Your task to perform on an android device: Go to eBay Image 0: 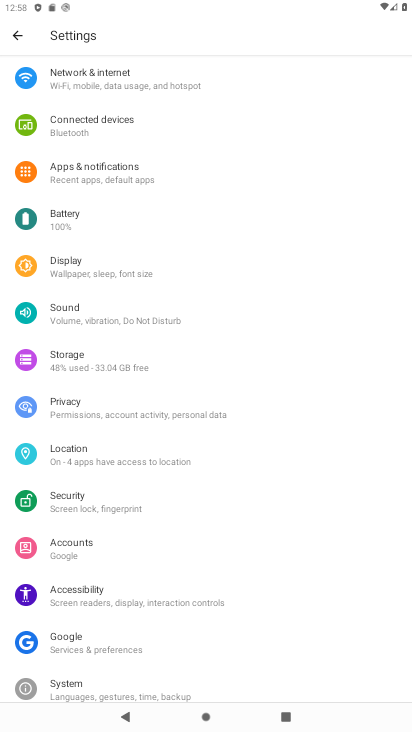
Step 0: drag from (162, 452) to (193, 273)
Your task to perform on an android device: Go to eBay Image 1: 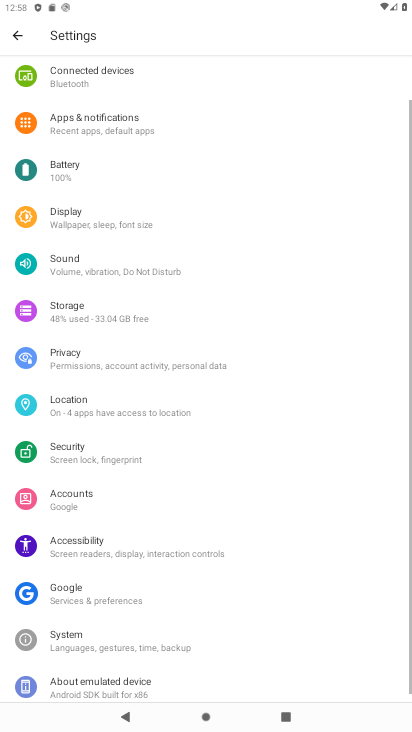
Step 1: drag from (219, 690) to (244, 730)
Your task to perform on an android device: Go to eBay Image 2: 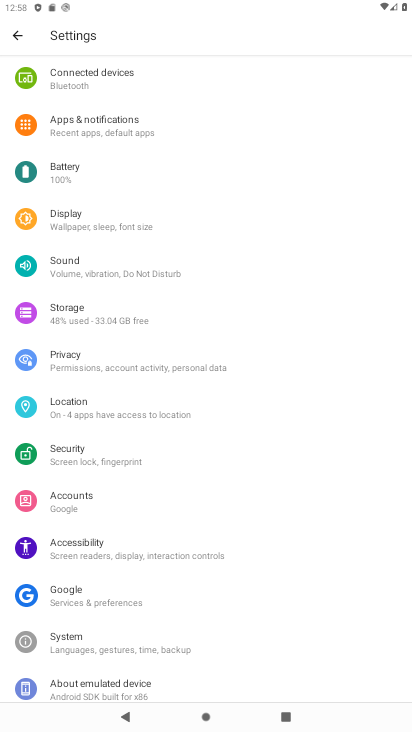
Step 2: drag from (136, 175) to (247, 664)
Your task to perform on an android device: Go to eBay Image 3: 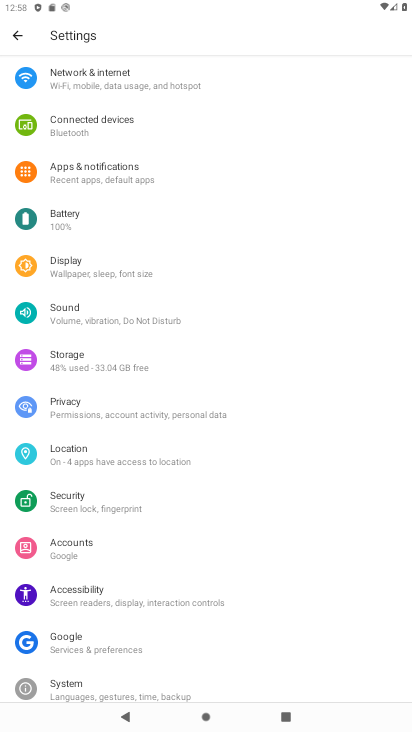
Step 3: drag from (120, 226) to (276, 727)
Your task to perform on an android device: Go to eBay Image 4: 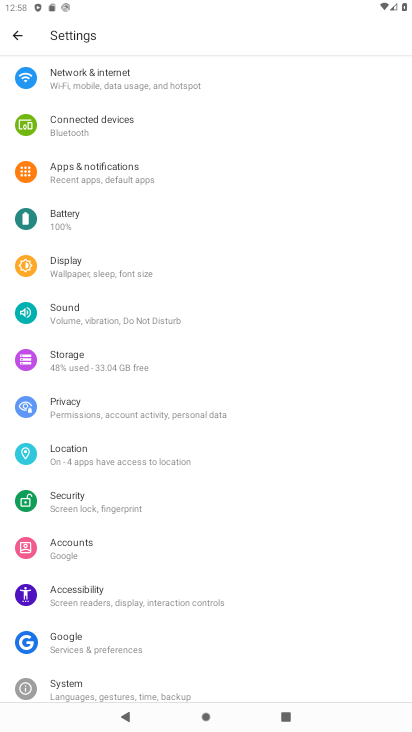
Step 4: press home button
Your task to perform on an android device: Go to eBay Image 5: 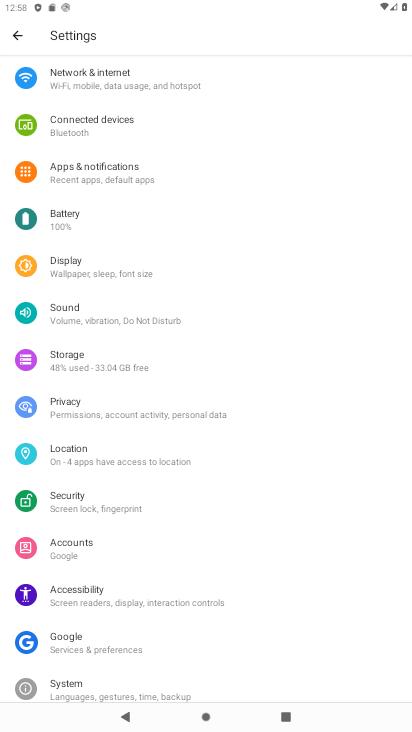
Step 5: press home button
Your task to perform on an android device: Go to eBay Image 6: 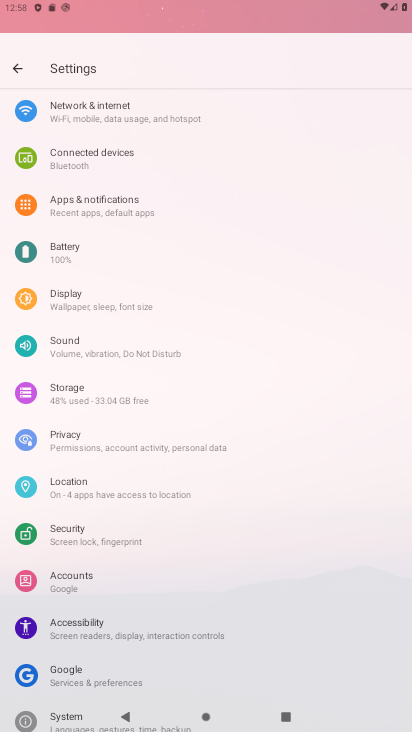
Step 6: drag from (162, 612) to (159, 405)
Your task to perform on an android device: Go to eBay Image 7: 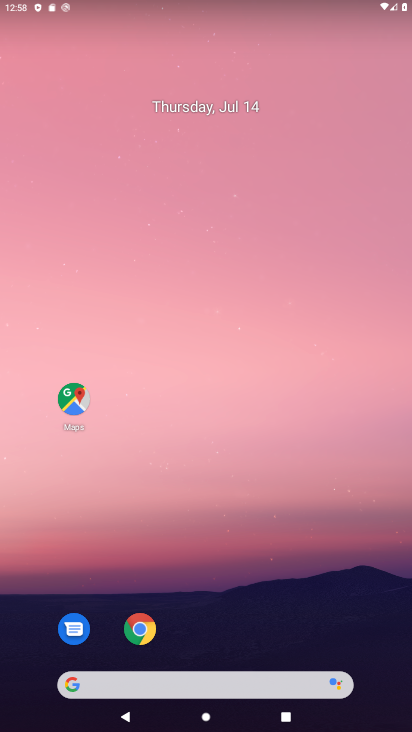
Step 7: drag from (206, 661) to (212, 232)
Your task to perform on an android device: Go to eBay Image 8: 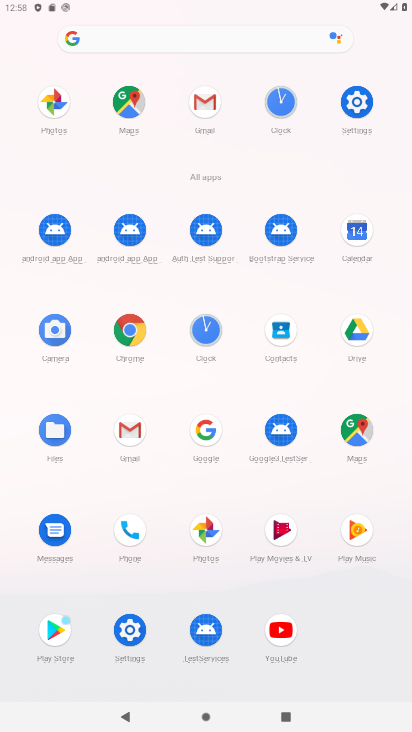
Step 8: drag from (253, 603) to (253, 437)
Your task to perform on an android device: Go to eBay Image 9: 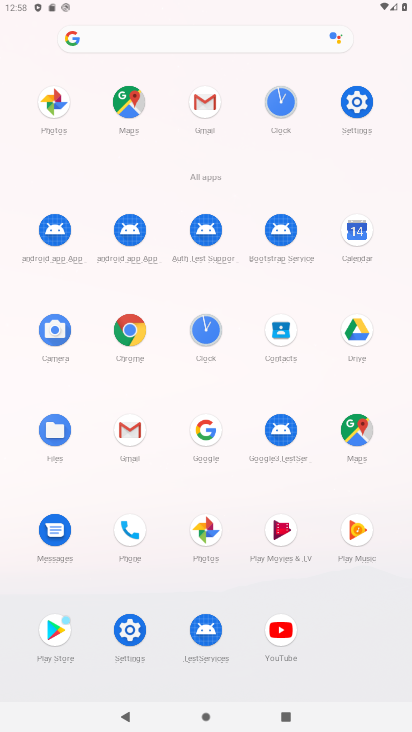
Step 9: drag from (245, 580) to (253, 416)
Your task to perform on an android device: Go to eBay Image 10: 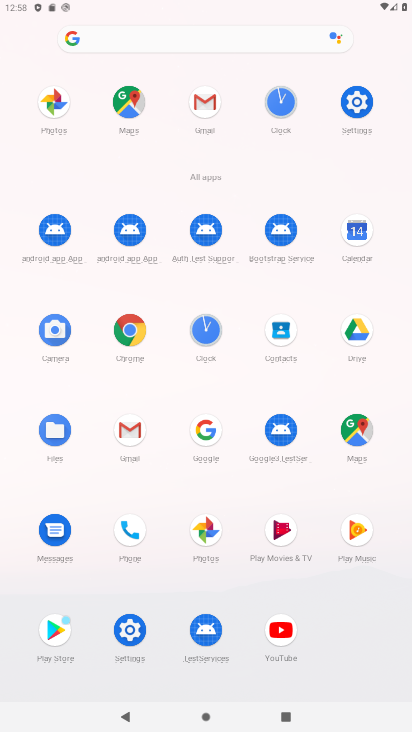
Step 10: drag from (231, 606) to (236, 365)
Your task to perform on an android device: Go to eBay Image 11: 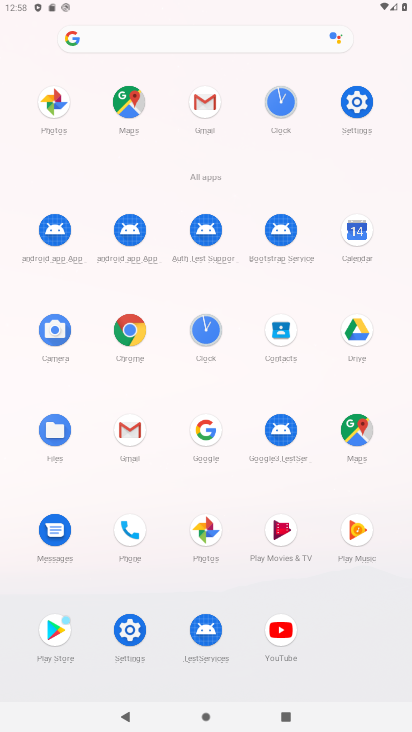
Step 11: drag from (239, 545) to (245, 248)
Your task to perform on an android device: Go to eBay Image 12: 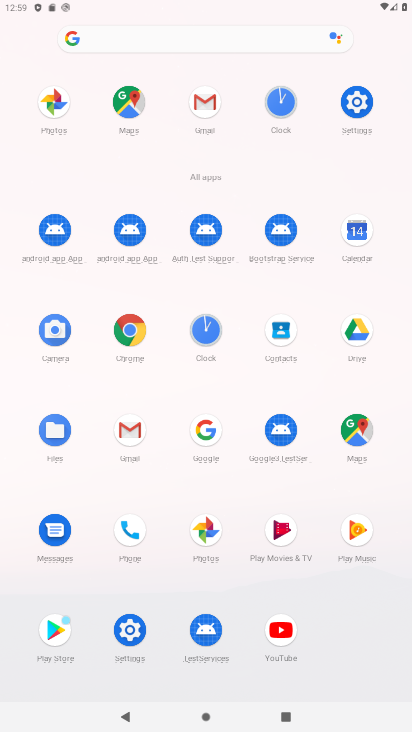
Step 12: click (124, 38)
Your task to perform on an android device: Go to eBay Image 13: 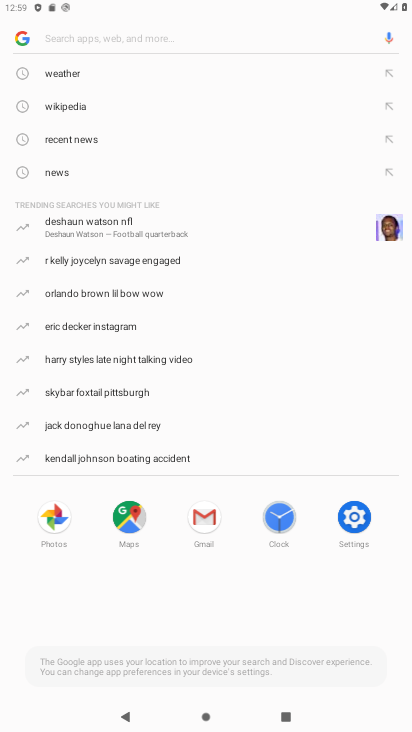
Step 13: drag from (174, 402) to (202, 196)
Your task to perform on an android device: Go to eBay Image 14: 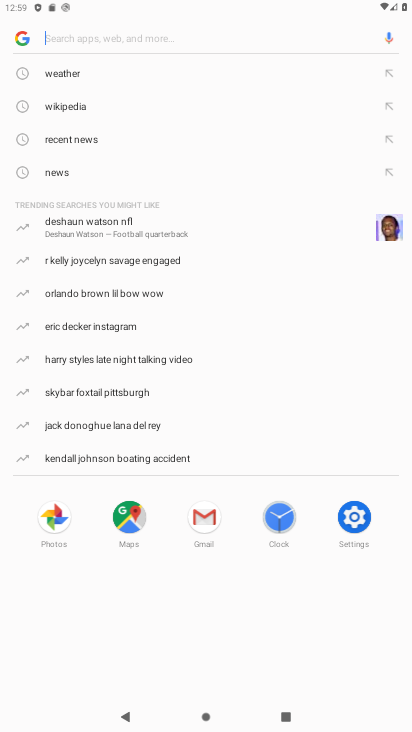
Step 14: drag from (205, 460) to (190, 211)
Your task to perform on an android device: Go to eBay Image 15: 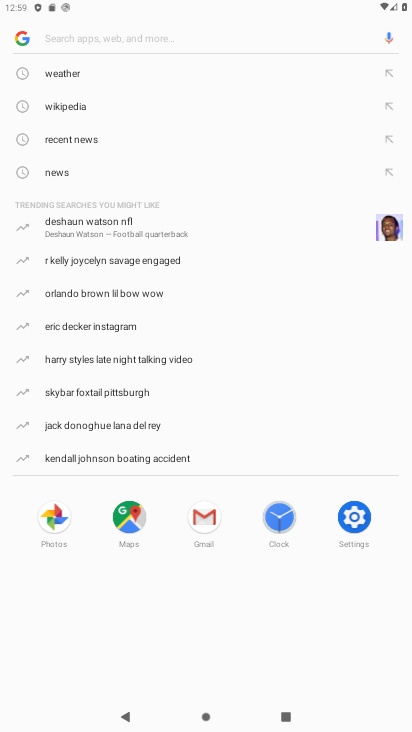
Step 15: drag from (151, 66) to (171, 432)
Your task to perform on an android device: Go to eBay Image 16: 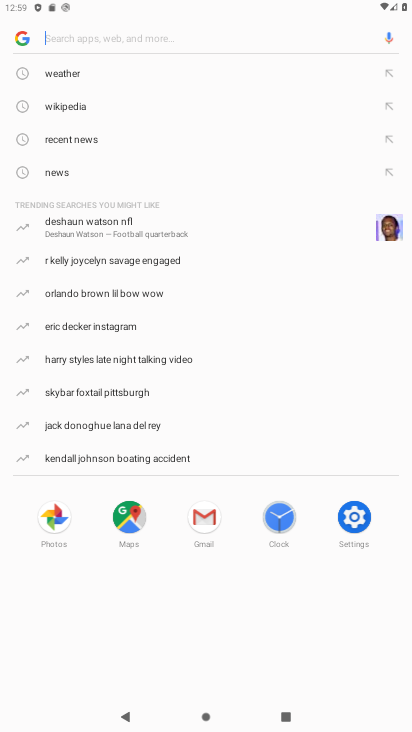
Step 16: drag from (123, 81) to (148, 423)
Your task to perform on an android device: Go to eBay Image 17: 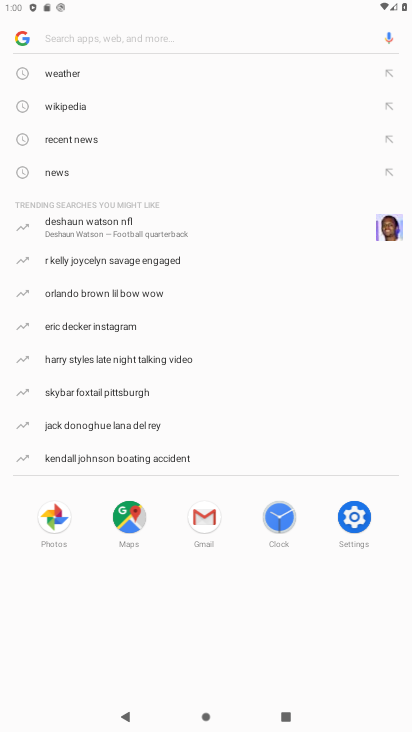
Step 17: drag from (177, 168) to (297, 453)
Your task to perform on an android device: Go to eBay Image 18: 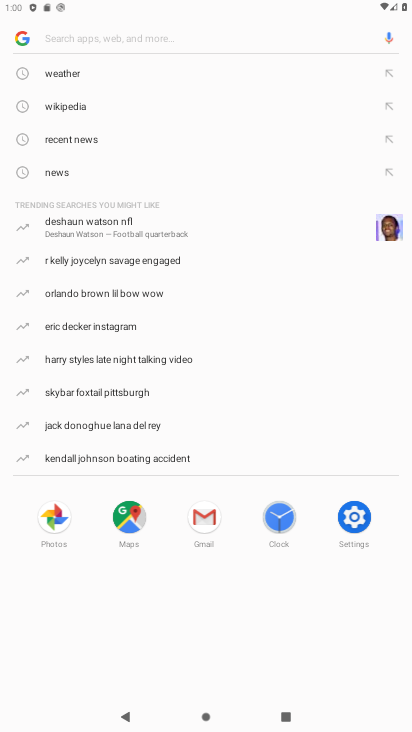
Step 18: drag from (115, 176) to (360, 635)
Your task to perform on an android device: Go to eBay Image 19: 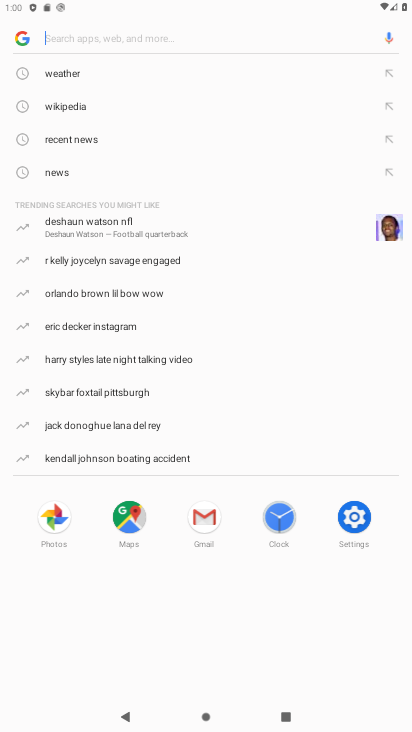
Step 19: type "ebay"
Your task to perform on an android device: Go to eBay Image 20: 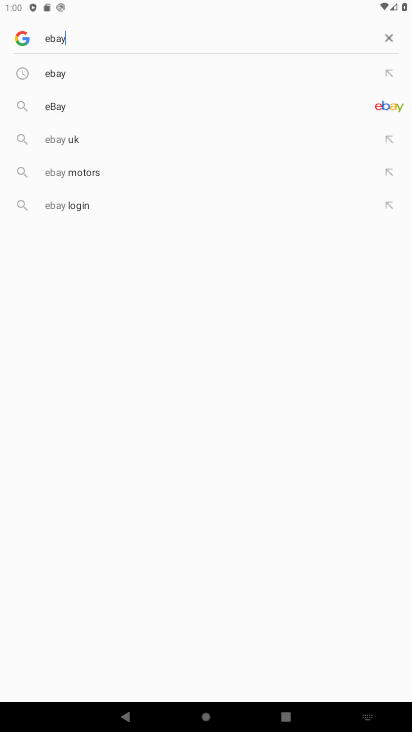
Step 20: click (99, 99)
Your task to perform on an android device: Go to eBay Image 21: 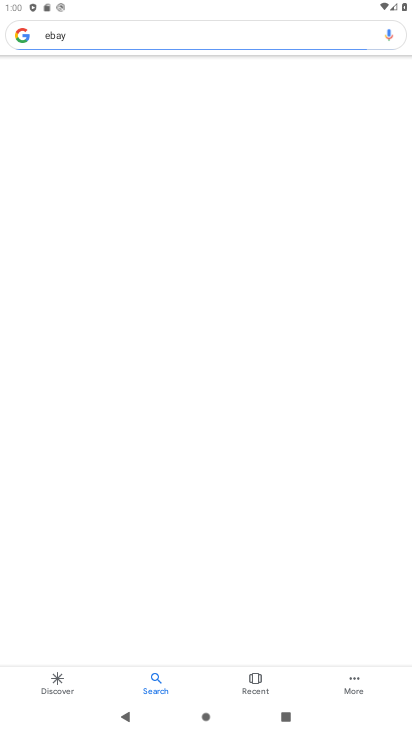
Step 21: drag from (167, 657) to (263, 54)
Your task to perform on an android device: Go to eBay Image 22: 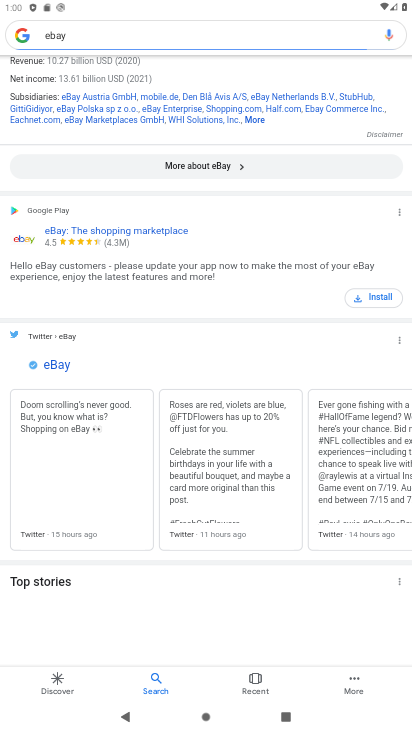
Step 22: drag from (220, 606) to (259, 282)
Your task to perform on an android device: Go to eBay Image 23: 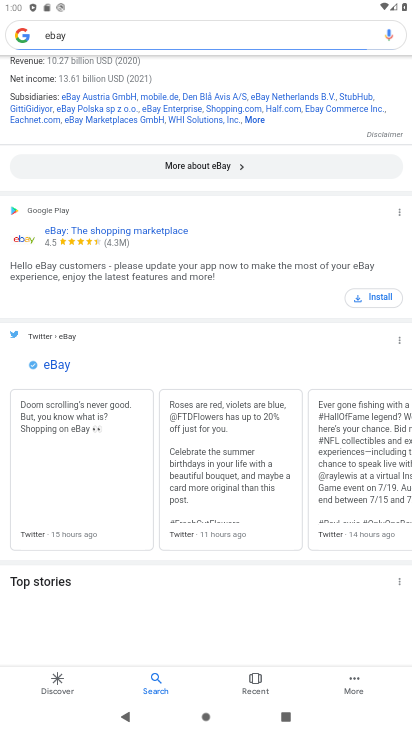
Step 23: drag from (263, 146) to (285, 722)
Your task to perform on an android device: Go to eBay Image 24: 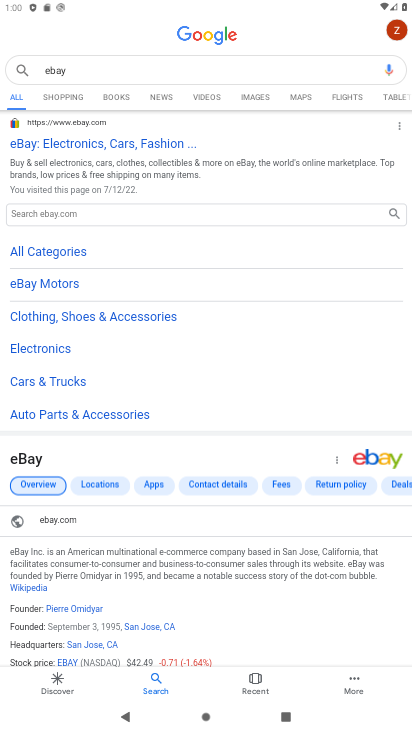
Step 24: drag from (227, 197) to (226, 714)
Your task to perform on an android device: Go to eBay Image 25: 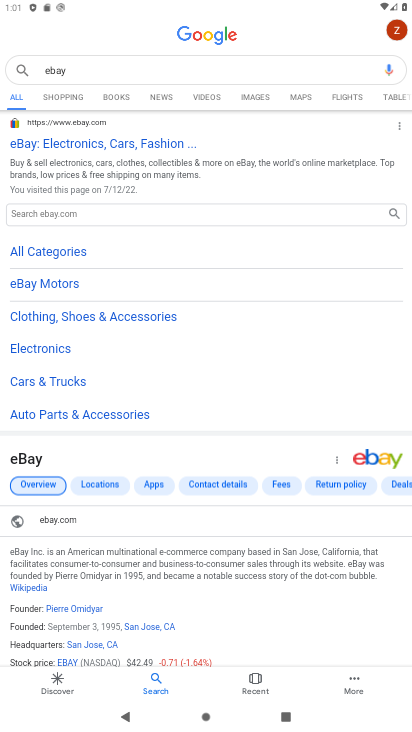
Step 25: drag from (86, 159) to (145, 301)
Your task to perform on an android device: Go to eBay Image 26: 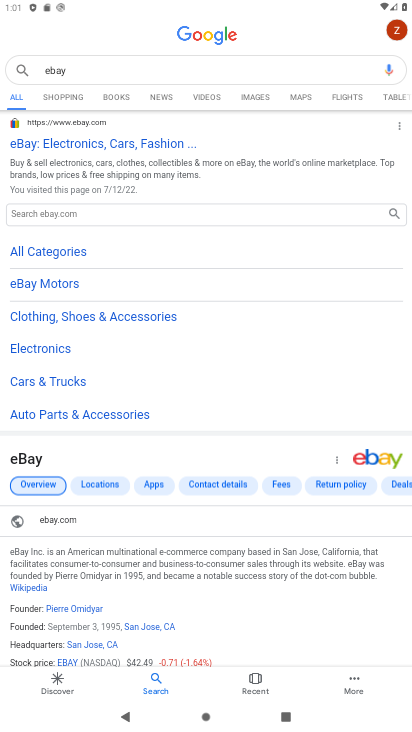
Step 26: click (111, 138)
Your task to perform on an android device: Go to eBay Image 27: 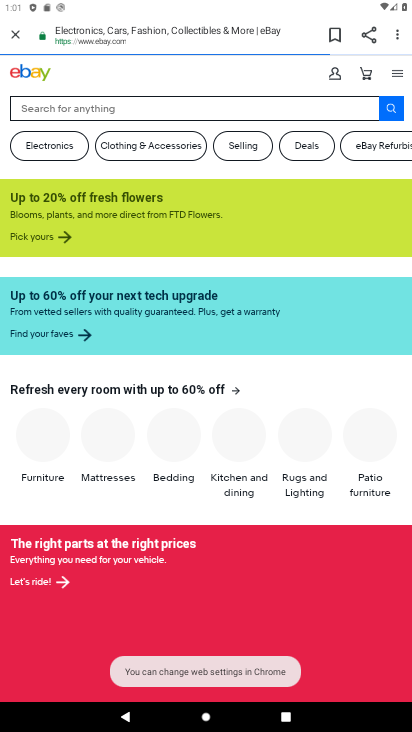
Step 27: task complete